Your task to perform on an android device: move an email to a new category in the gmail app Image 0: 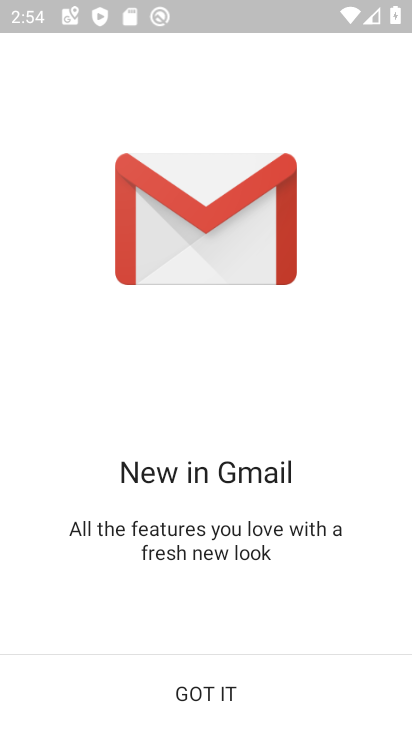
Step 0: click (327, 705)
Your task to perform on an android device: move an email to a new category in the gmail app Image 1: 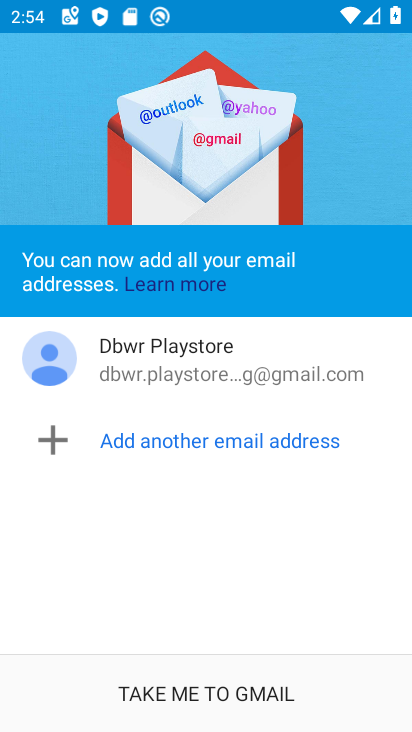
Step 1: click (327, 705)
Your task to perform on an android device: move an email to a new category in the gmail app Image 2: 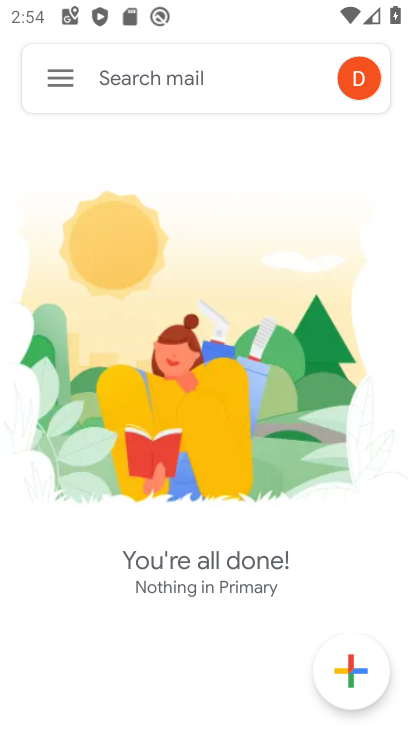
Step 2: click (62, 72)
Your task to perform on an android device: move an email to a new category in the gmail app Image 3: 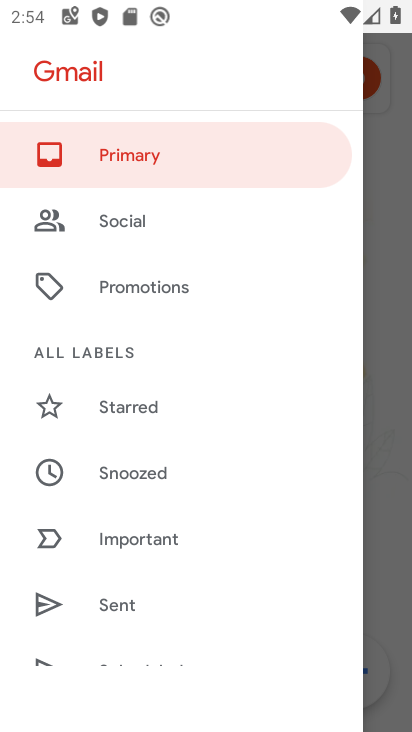
Step 3: drag from (186, 566) to (168, 144)
Your task to perform on an android device: move an email to a new category in the gmail app Image 4: 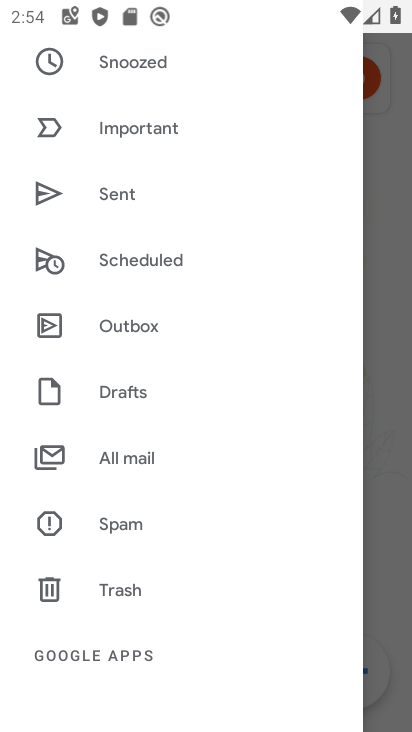
Step 4: click (126, 459)
Your task to perform on an android device: move an email to a new category in the gmail app Image 5: 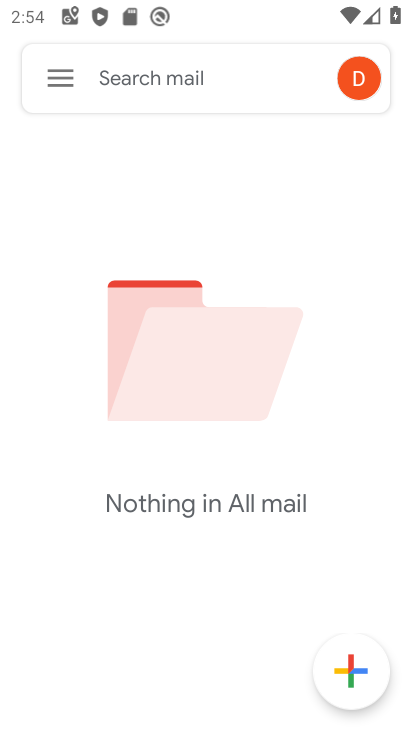
Step 5: task complete